Your task to perform on an android device: Open Android settings Image 0: 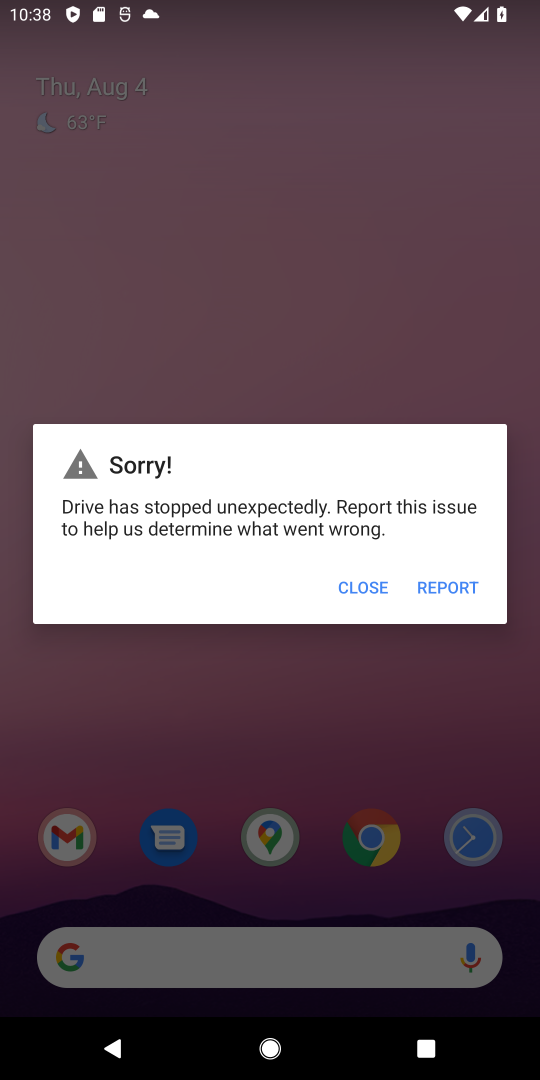
Step 0: press home button
Your task to perform on an android device: Open Android settings Image 1: 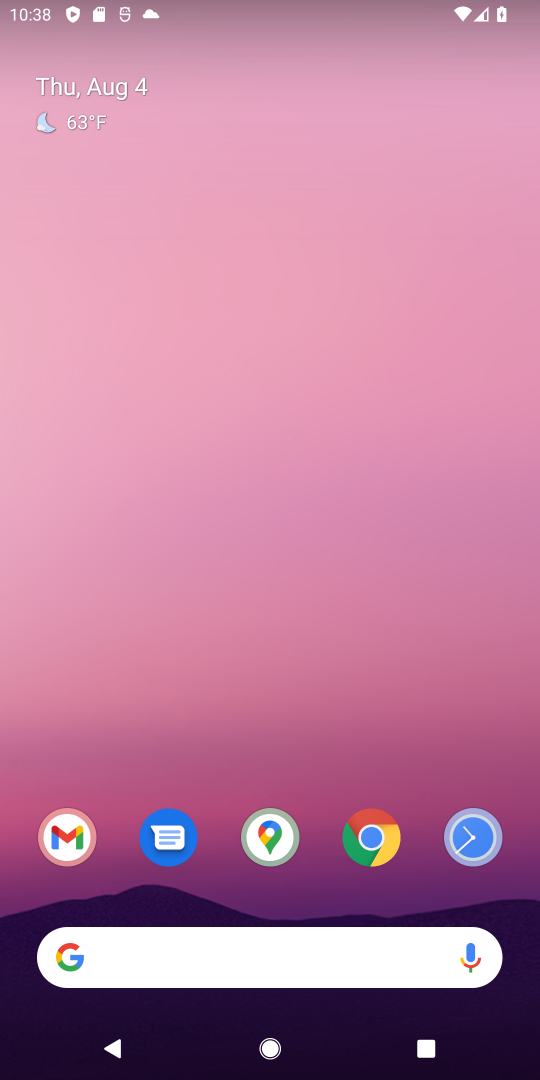
Step 1: drag from (321, 912) to (333, 210)
Your task to perform on an android device: Open Android settings Image 2: 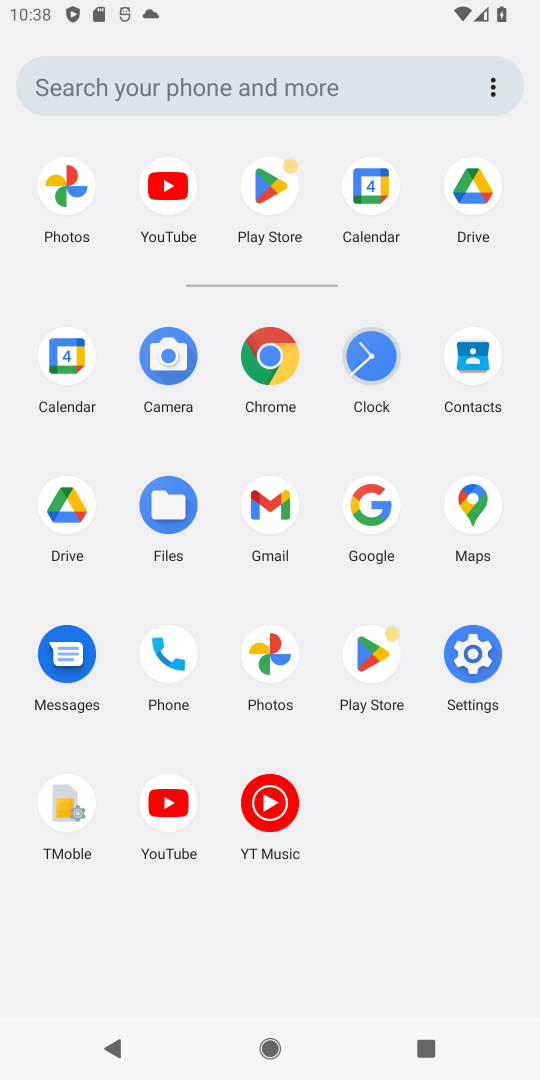
Step 2: click (451, 646)
Your task to perform on an android device: Open Android settings Image 3: 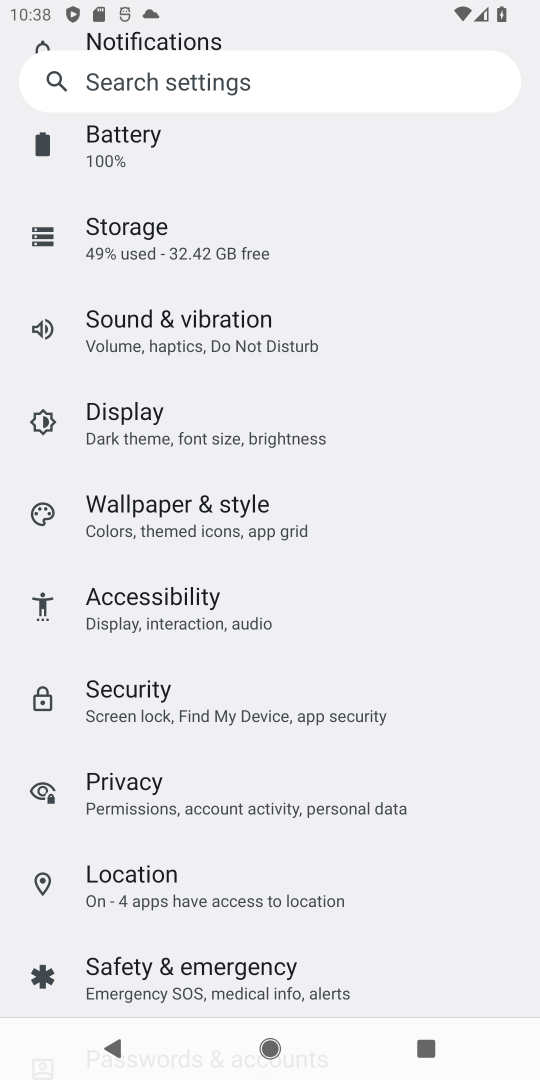
Step 3: drag from (264, 921) to (346, 219)
Your task to perform on an android device: Open Android settings Image 4: 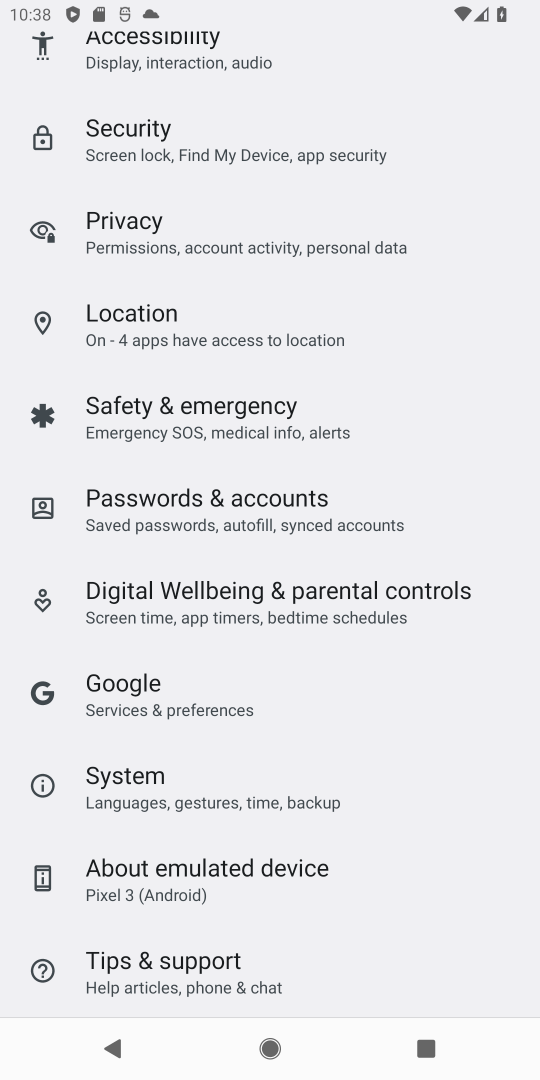
Step 4: drag from (237, 955) to (363, 412)
Your task to perform on an android device: Open Android settings Image 5: 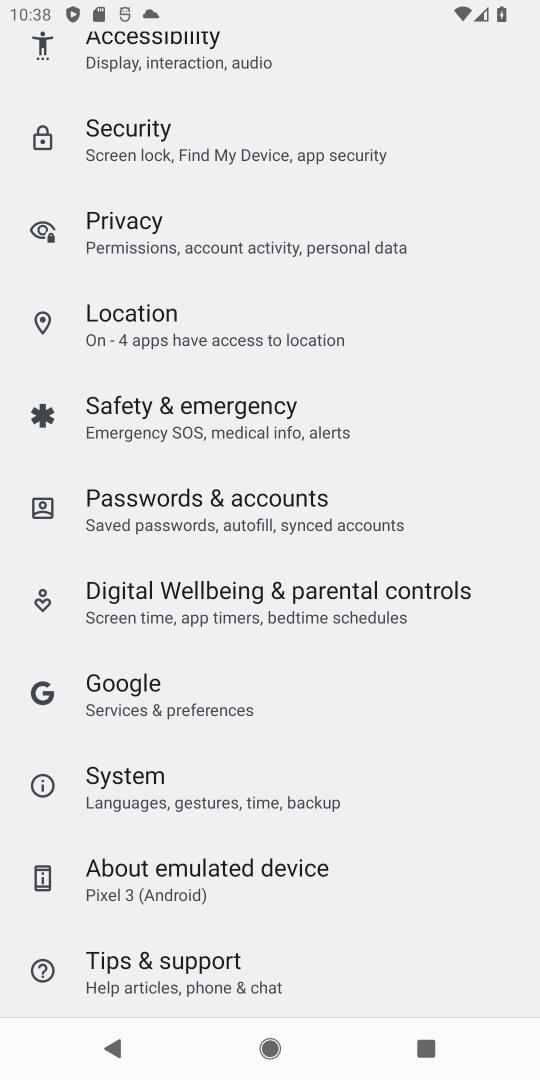
Step 5: click (231, 870)
Your task to perform on an android device: Open Android settings Image 6: 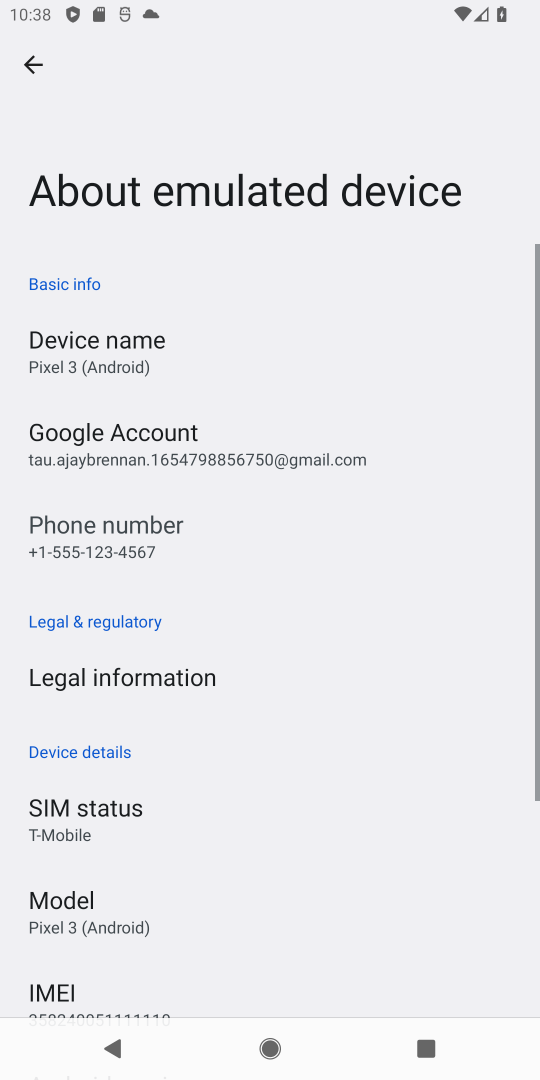
Step 6: drag from (138, 898) to (283, 210)
Your task to perform on an android device: Open Android settings Image 7: 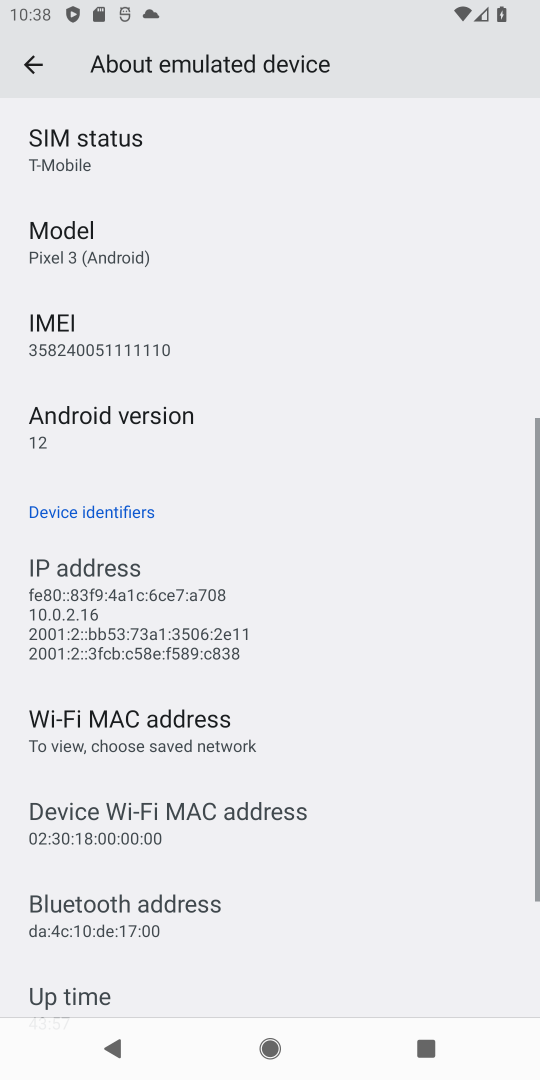
Step 7: click (69, 409)
Your task to perform on an android device: Open Android settings Image 8: 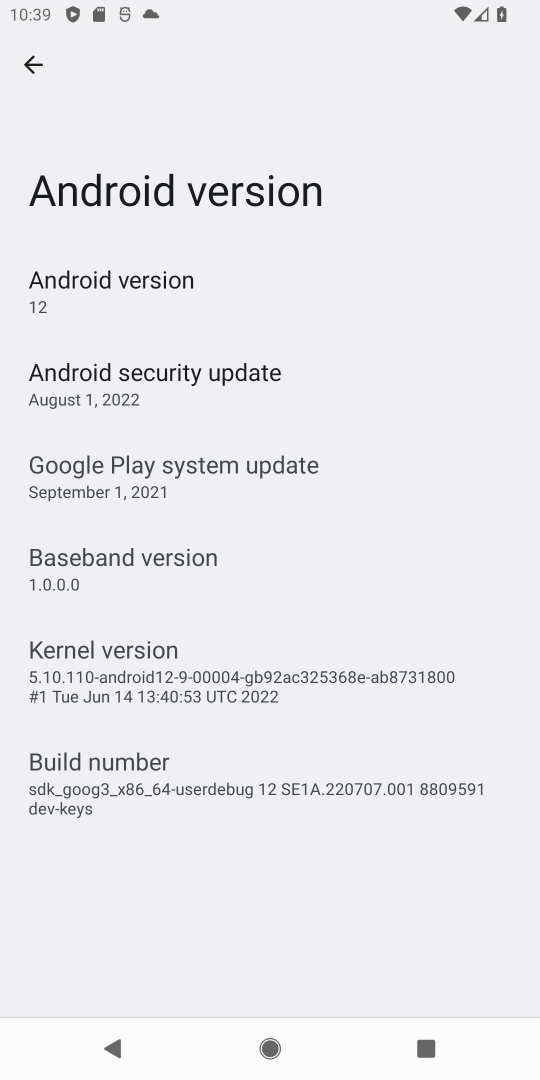
Step 8: task complete